Your task to perform on an android device: toggle location history Image 0: 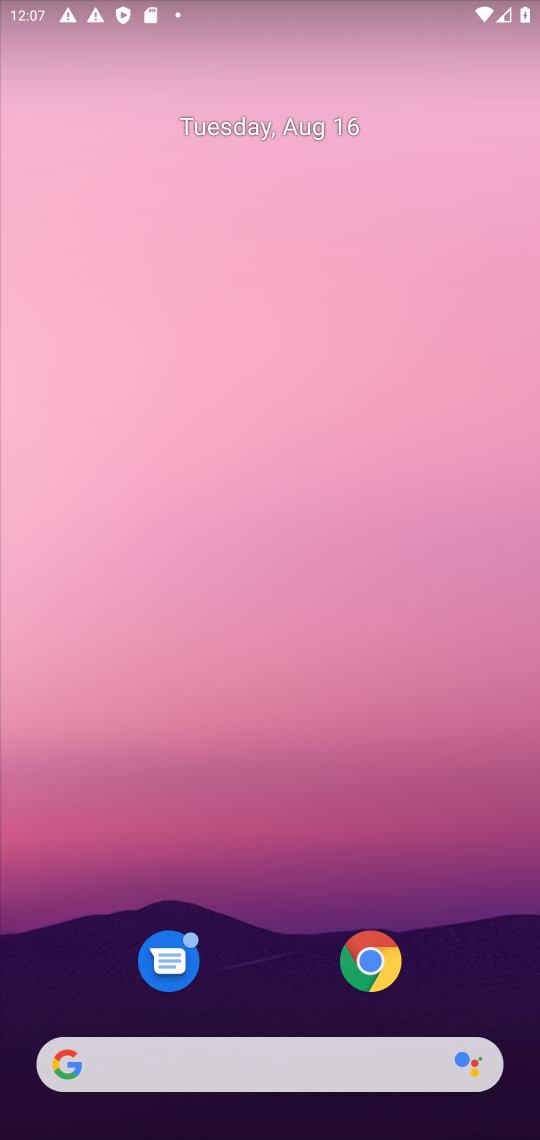
Step 0: drag from (255, 997) to (340, 48)
Your task to perform on an android device: toggle location history Image 1: 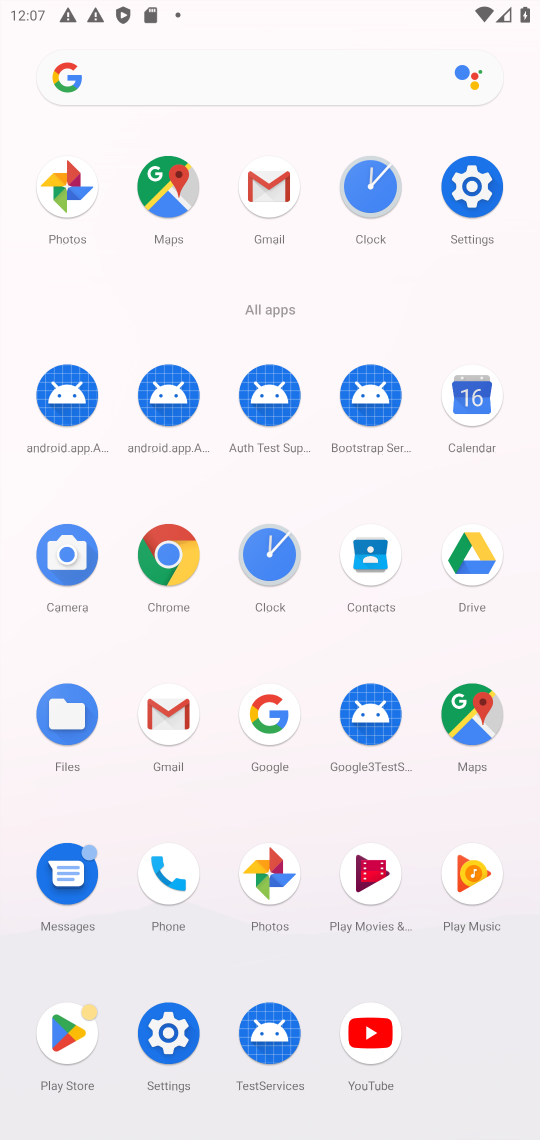
Step 1: click (157, 1018)
Your task to perform on an android device: toggle location history Image 2: 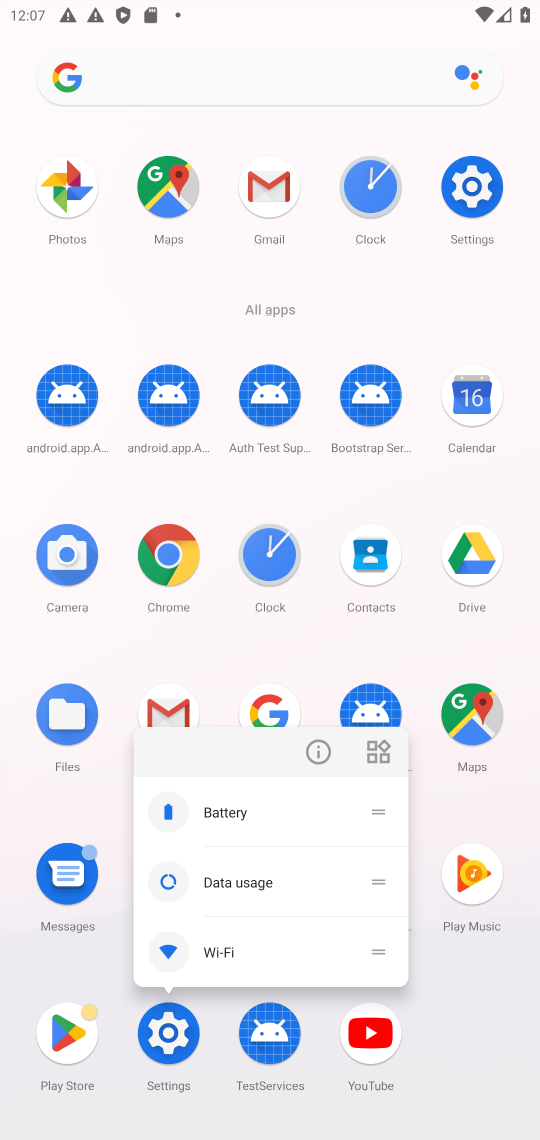
Step 2: click (168, 1030)
Your task to perform on an android device: toggle location history Image 3: 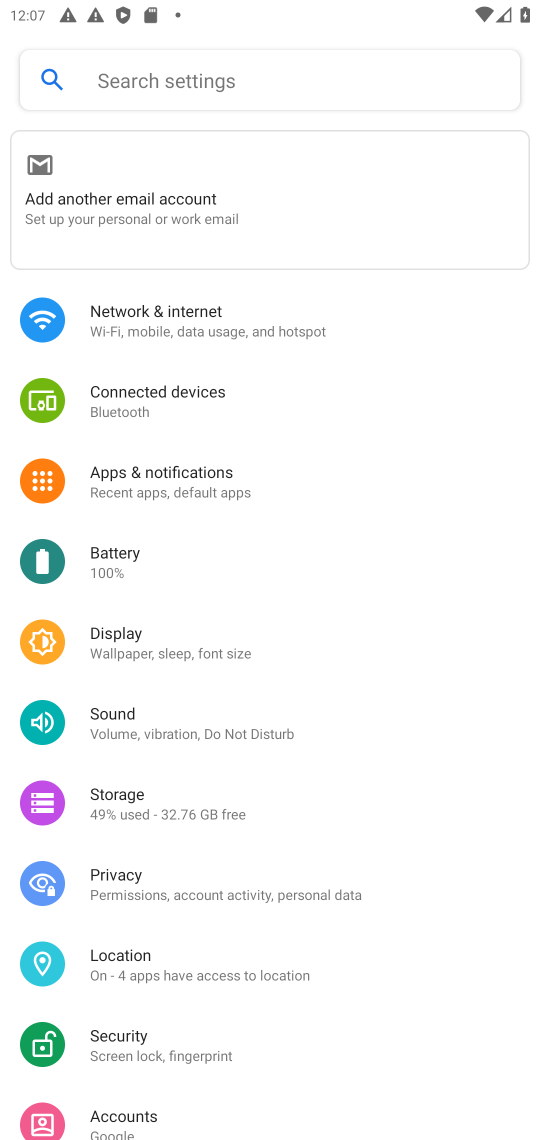
Step 3: drag from (259, 1001) to (199, 400)
Your task to perform on an android device: toggle location history Image 4: 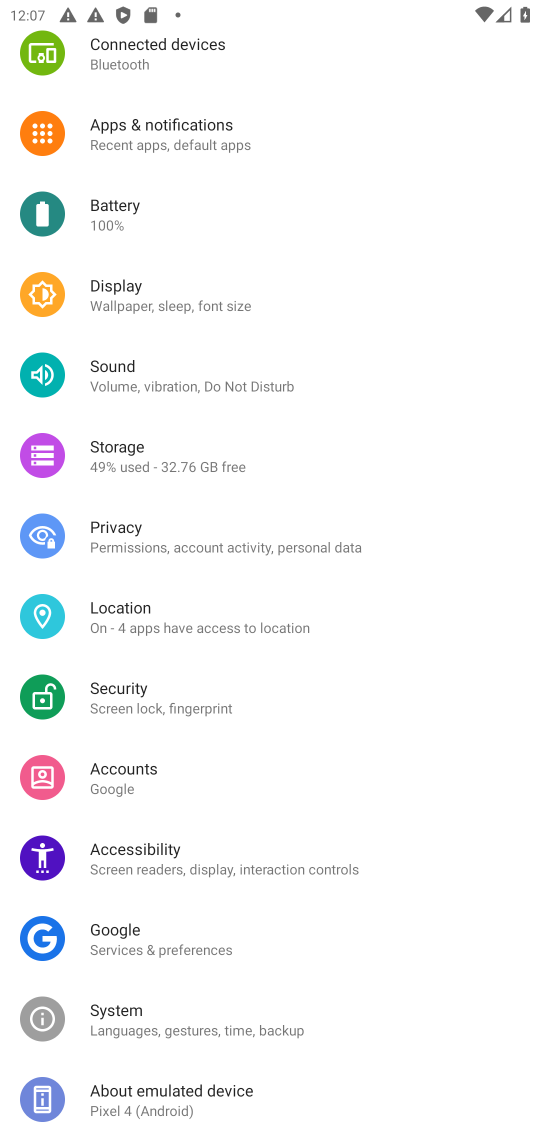
Step 4: click (159, 614)
Your task to perform on an android device: toggle location history Image 5: 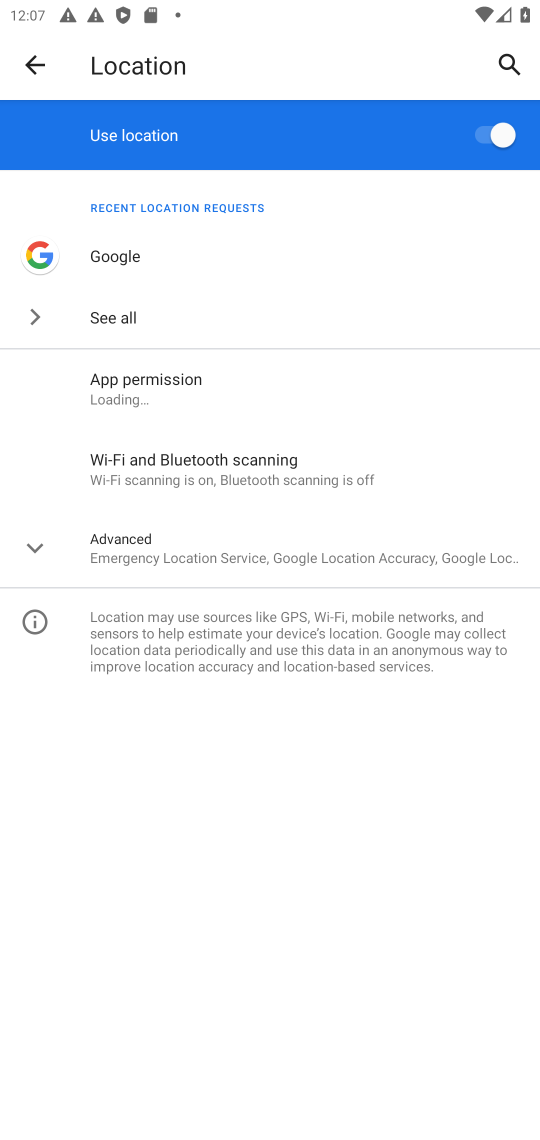
Step 5: click (331, 152)
Your task to perform on an android device: toggle location history Image 6: 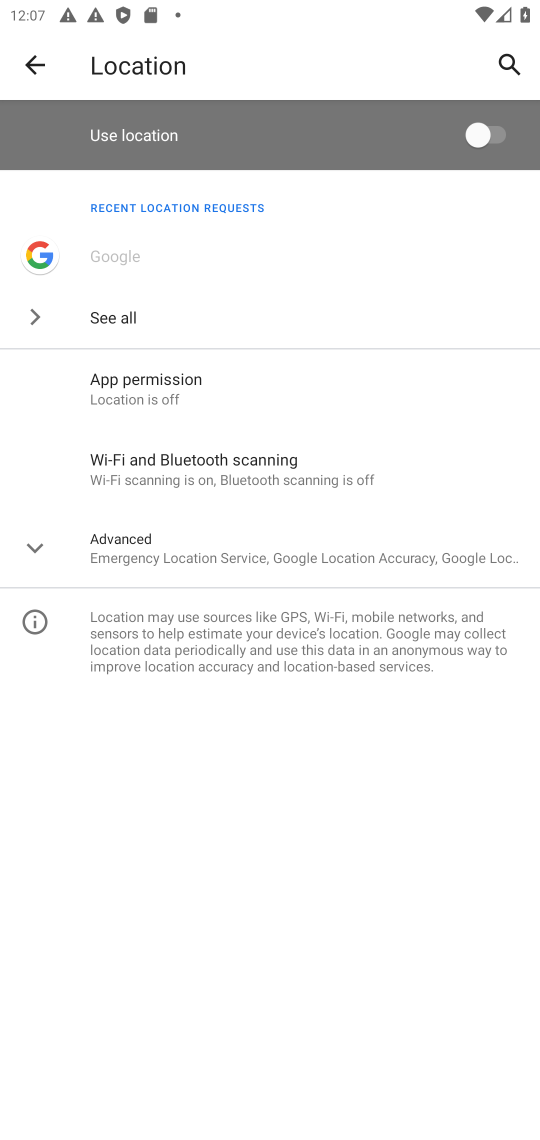
Step 6: task complete